Your task to perform on an android device: star an email in the gmail app Image 0: 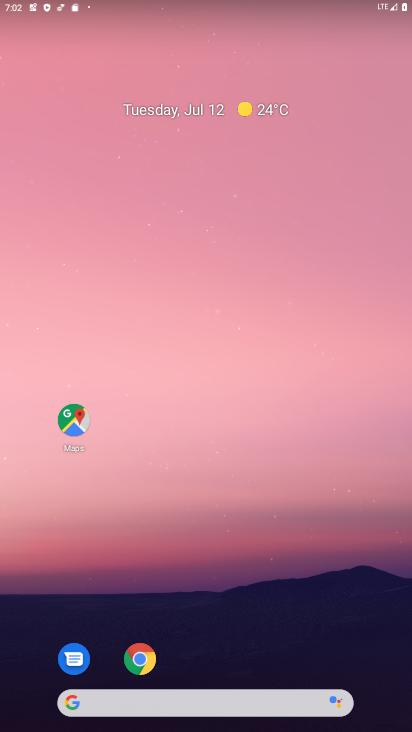
Step 0: drag from (362, 695) to (264, 0)
Your task to perform on an android device: star an email in the gmail app Image 1: 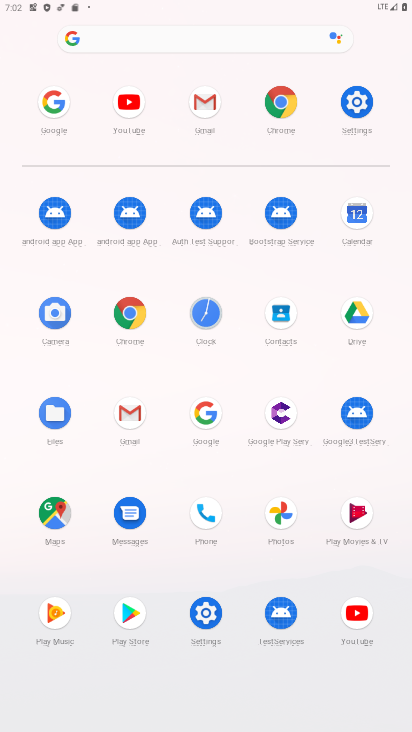
Step 1: click (134, 419)
Your task to perform on an android device: star an email in the gmail app Image 2: 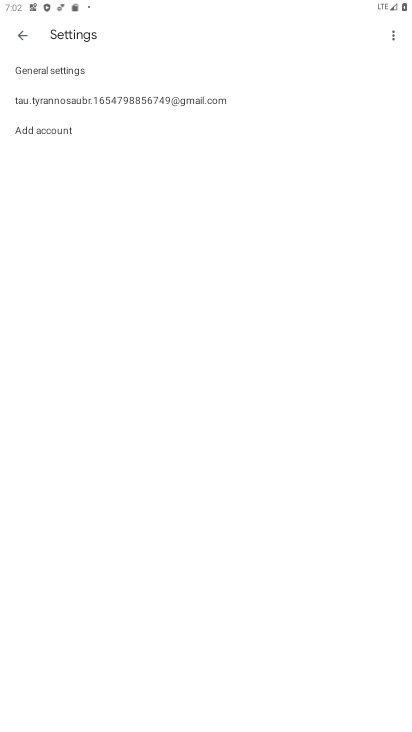
Step 2: press back button
Your task to perform on an android device: star an email in the gmail app Image 3: 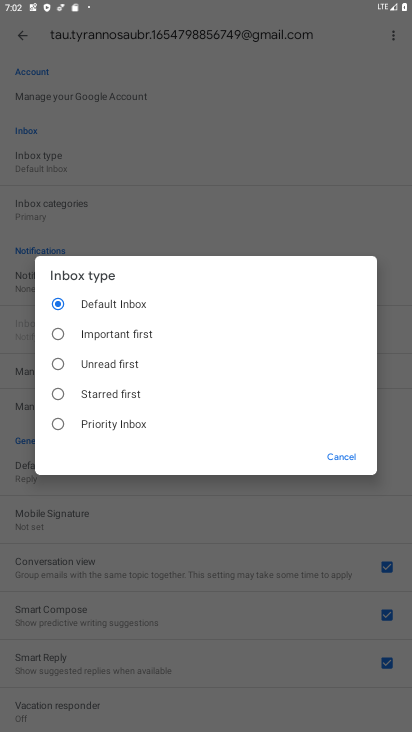
Step 3: press back button
Your task to perform on an android device: star an email in the gmail app Image 4: 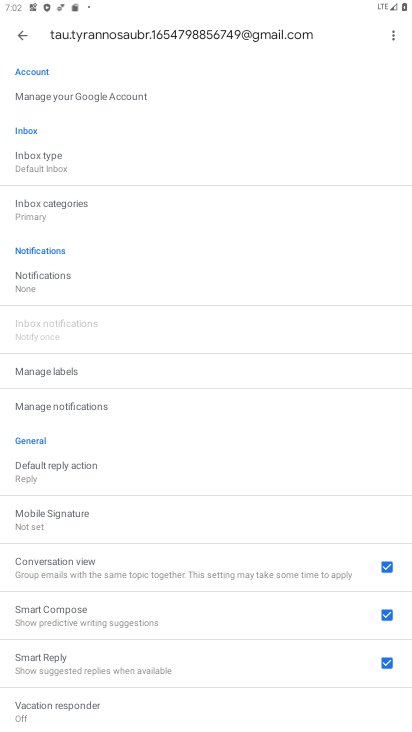
Step 4: press back button
Your task to perform on an android device: star an email in the gmail app Image 5: 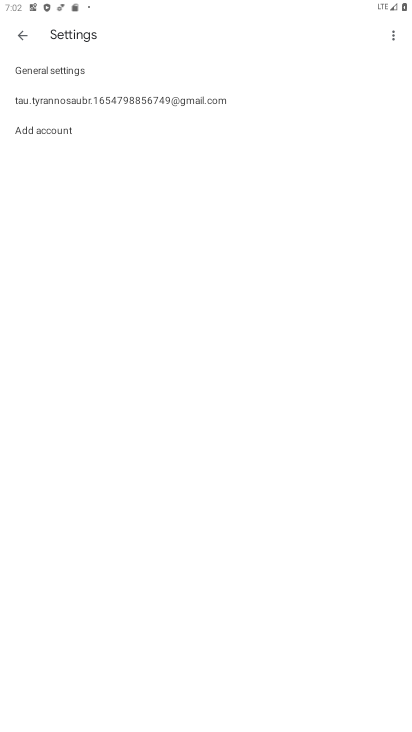
Step 5: press back button
Your task to perform on an android device: star an email in the gmail app Image 6: 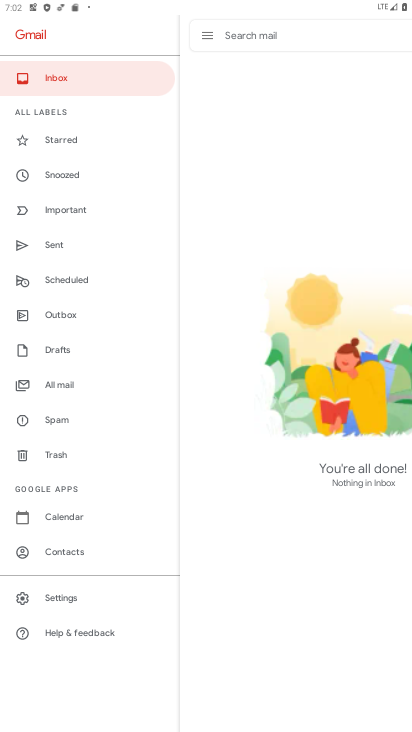
Step 6: click (64, 385)
Your task to perform on an android device: star an email in the gmail app Image 7: 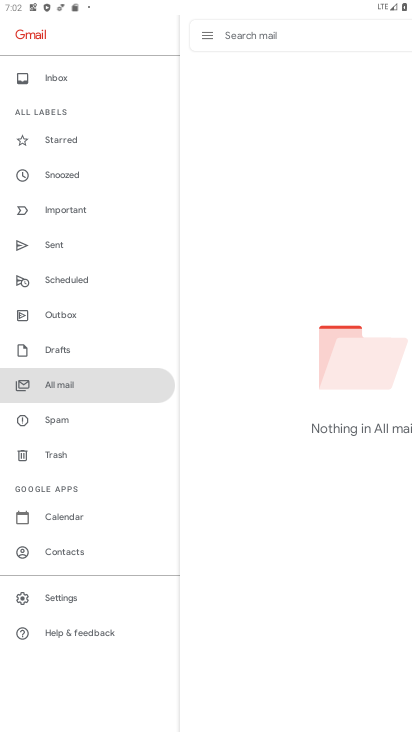
Step 7: task complete